Your task to perform on an android device: turn on wifi Image 0: 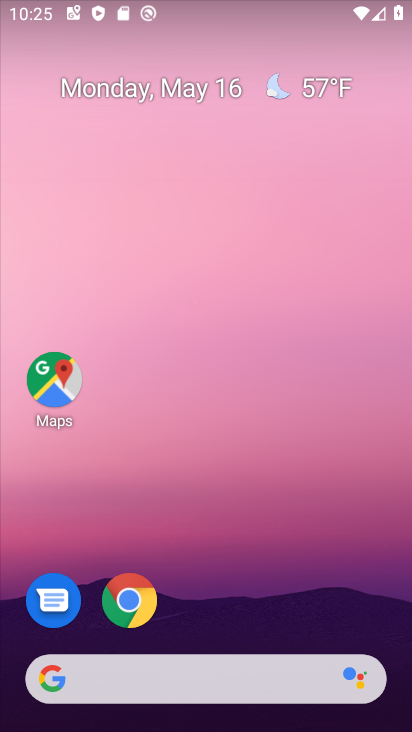
Step 0: drag from (362, 547) to (331, 217)
Your task to perform on an android device: turn on wifi Image 1: 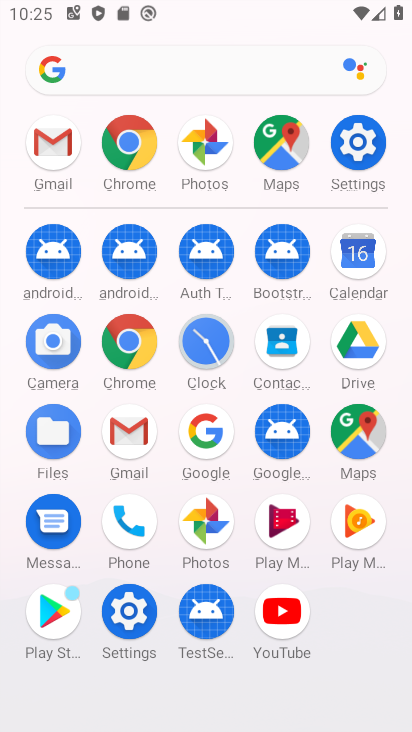
Step 1: click (385, 130)
Your task to perform on an android device: turn on wifi Image 2: 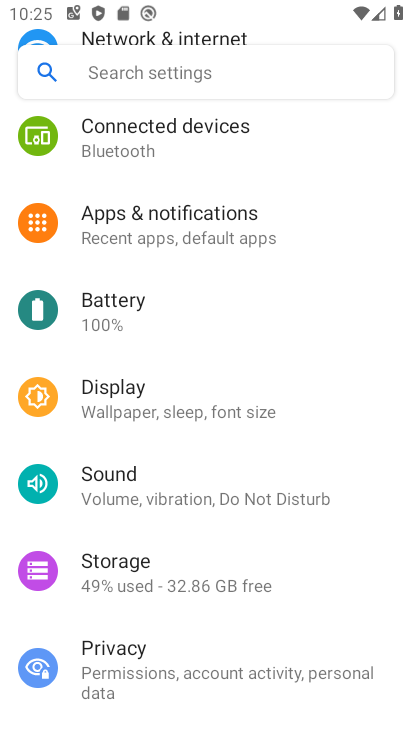
Step 2: drag from (229, 160) to (274, 454)
Your task to perform on an android device: turn on wifi Image 3: 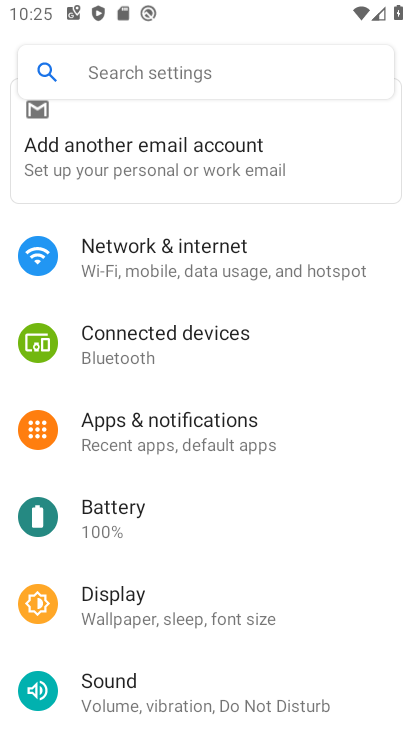
Step 3: click (171, 252)
Your task to perform on an android device: turn on wifi Image 4: 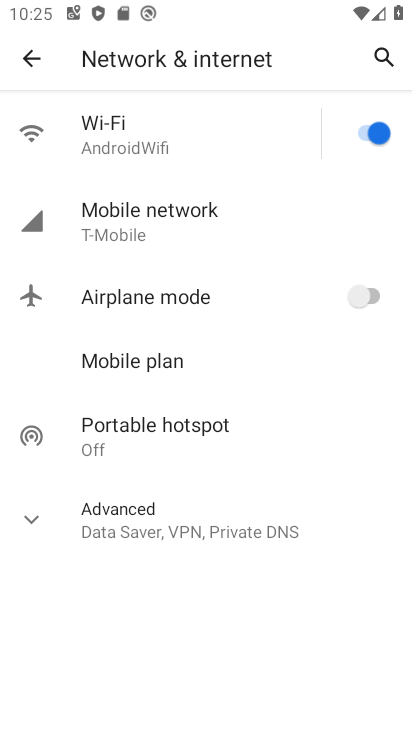
Step 4: click (113, 131)
Your task to perform on an android device: turn on wifi Image 5: 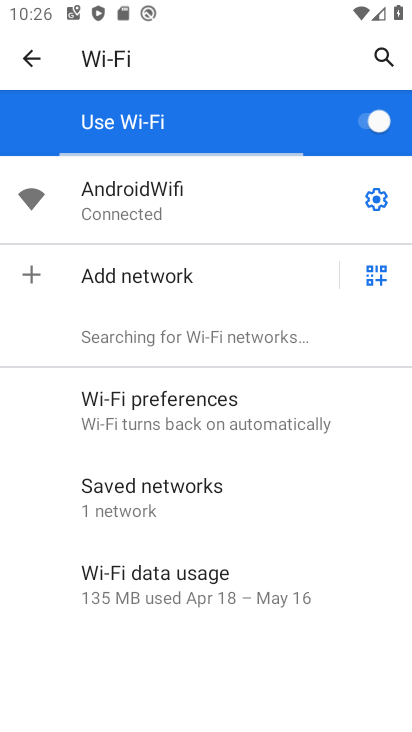
Step 5: task complete